Your task to perform on an android device: Open eBay Image 0: 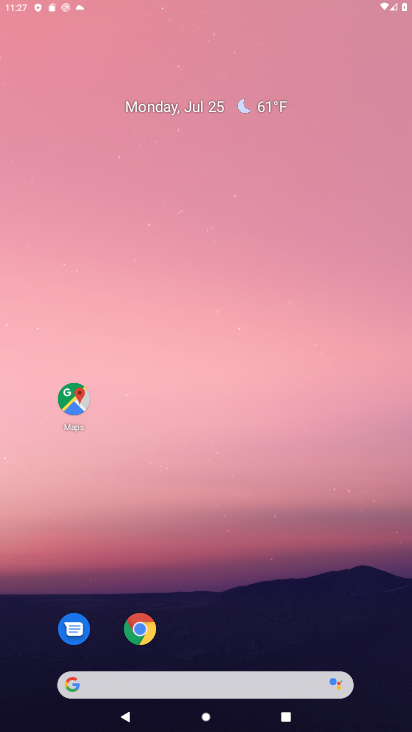
Step 0: drag from (345, 51) to (357, 13)
Your task to perform on an android device: Open eBay Image 1: 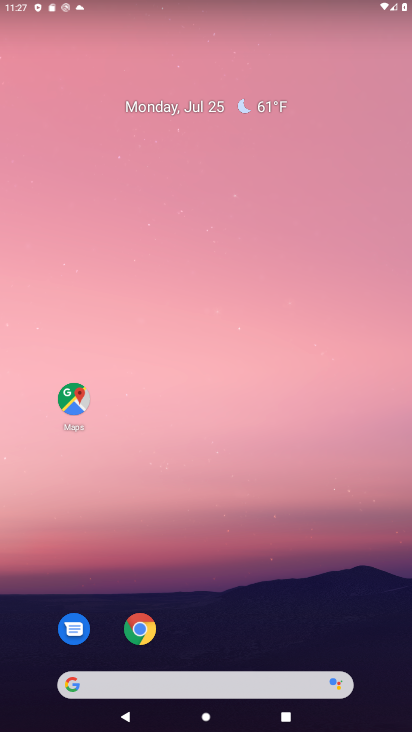
Step 1: drag from (180, 662) to (324, 145)
Your task to perform on an android device: Open eBay Image 2: 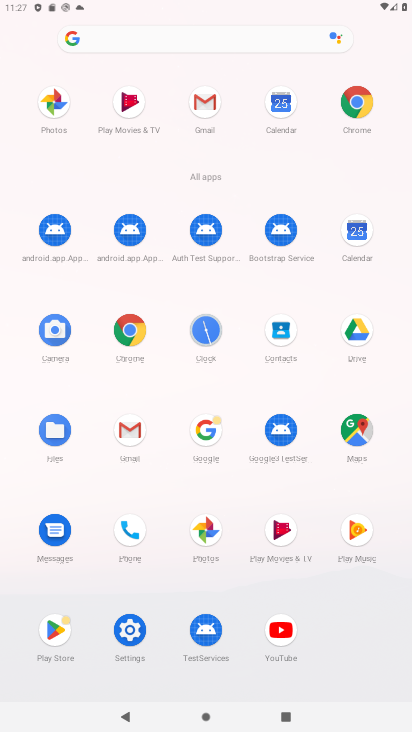
Step 2: click (160, 38)
Your task to perform on an android device: Open eBay Image 3: 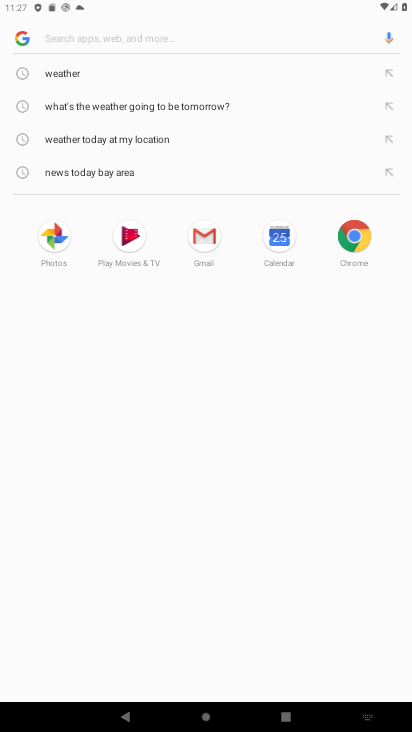
Step 3: type "ebay"
Your task to perform on an android device: Open eBay Image 4: 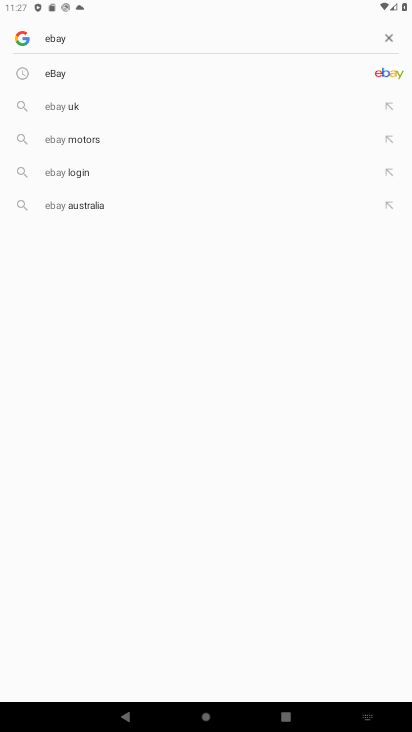
Step 4: click (54, 79)
Your task to perform on an android device: Open eBay Image 5: 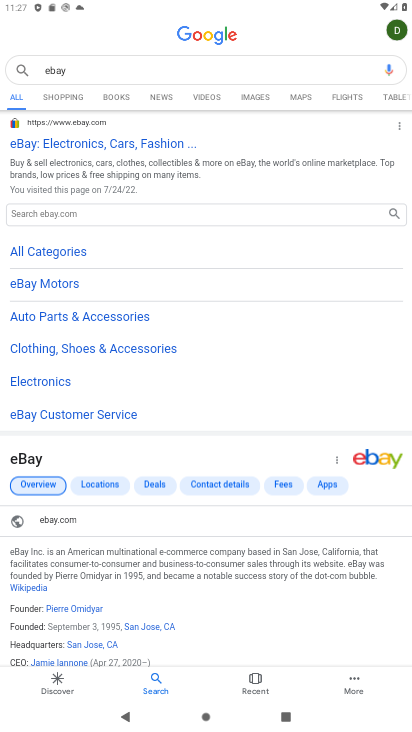
Step 5: click (50, 146)
Your task to perform on an android device: Open eBay Image 6: 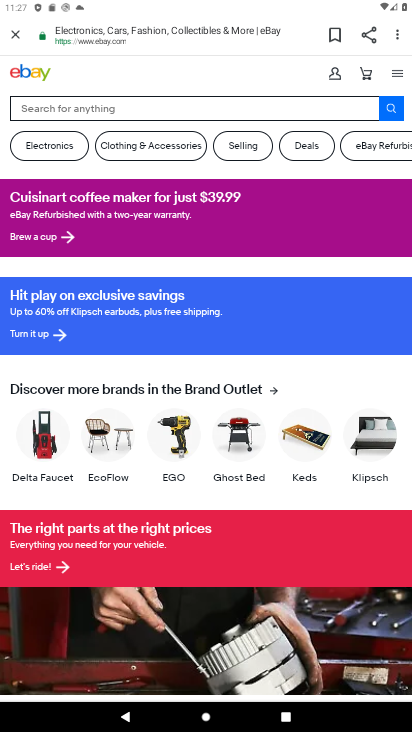
Step 6: task complete